Your task to perform on an android device: check google app version Image 0: 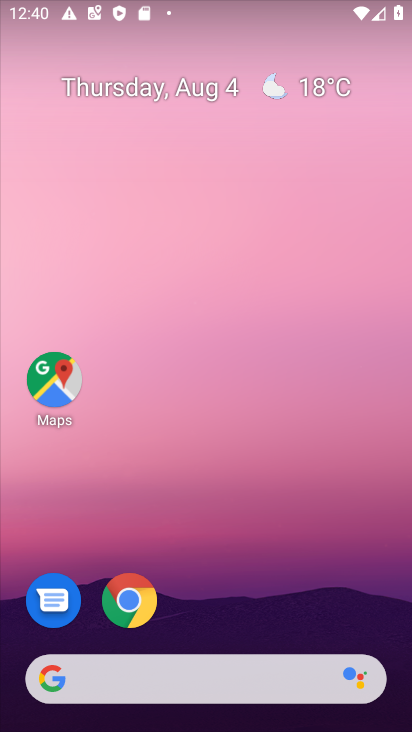
Step 0: press home button
Your task to perform on an android device: check google app version Image 1: 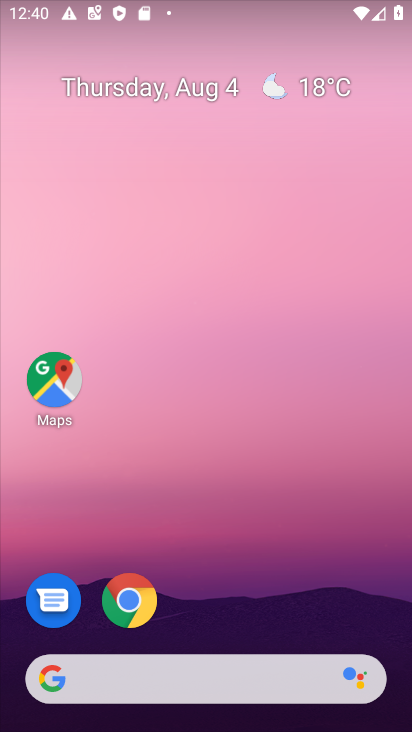
Step 1: drag from (156, 690) to (323, 97)
Your task to perform on an android device: check google app version Image 2: 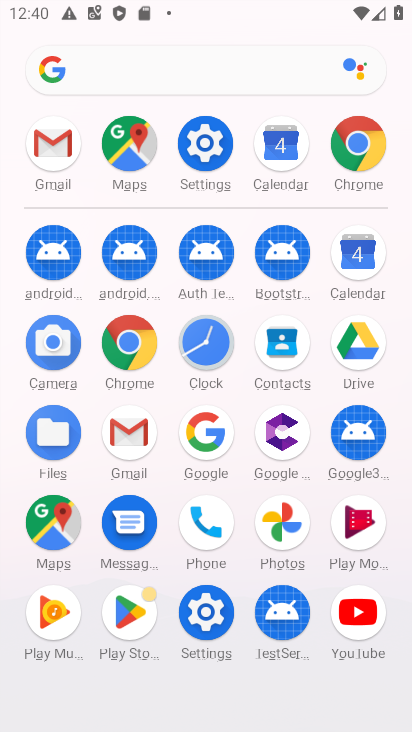
Step 2: click (219, 429)
Your task to perform on an android device: check google app version Image 3: 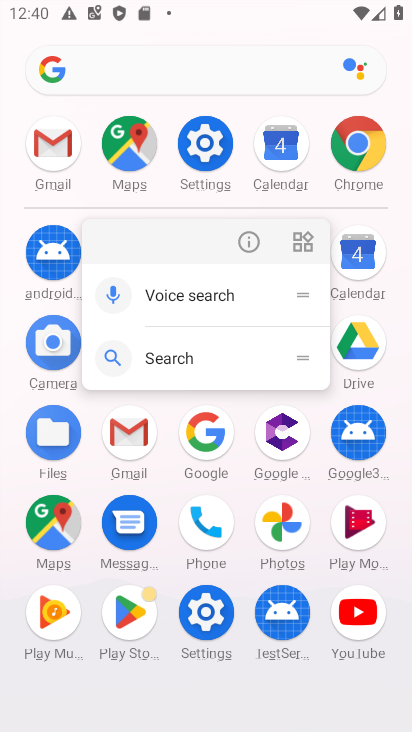
Step 3: click (256, 237)
Your task to perform on an android device: check google app version Image 4: 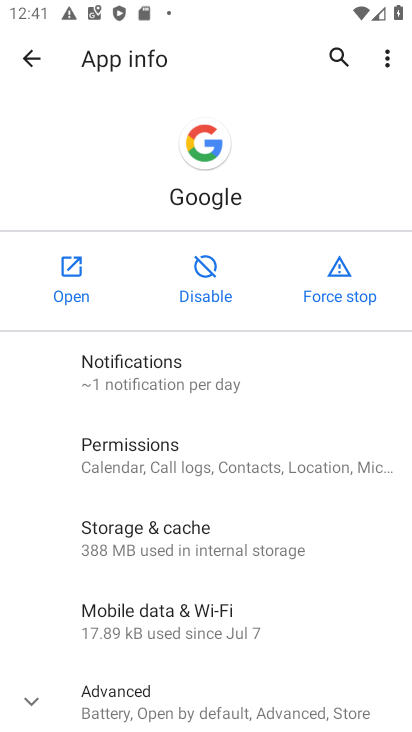
Step 4: drag from (198, 608) to (345, 101)
Your task to perform on an android device: check google app version Image 5: 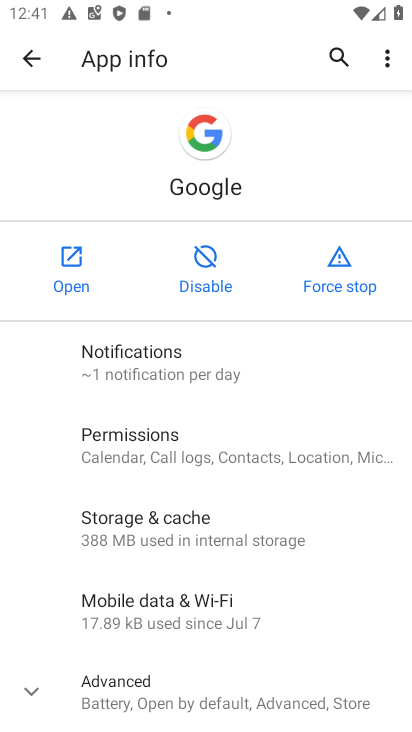
Step 5: click (109, 681)
Your task to perform on an android device: check google app version Image 6: 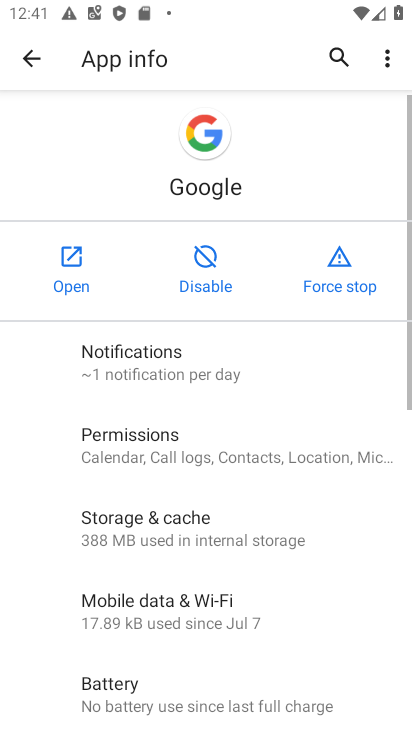
Step 6: task complete